Your task to perform on an android device: open app "Google Keep" Image 0: 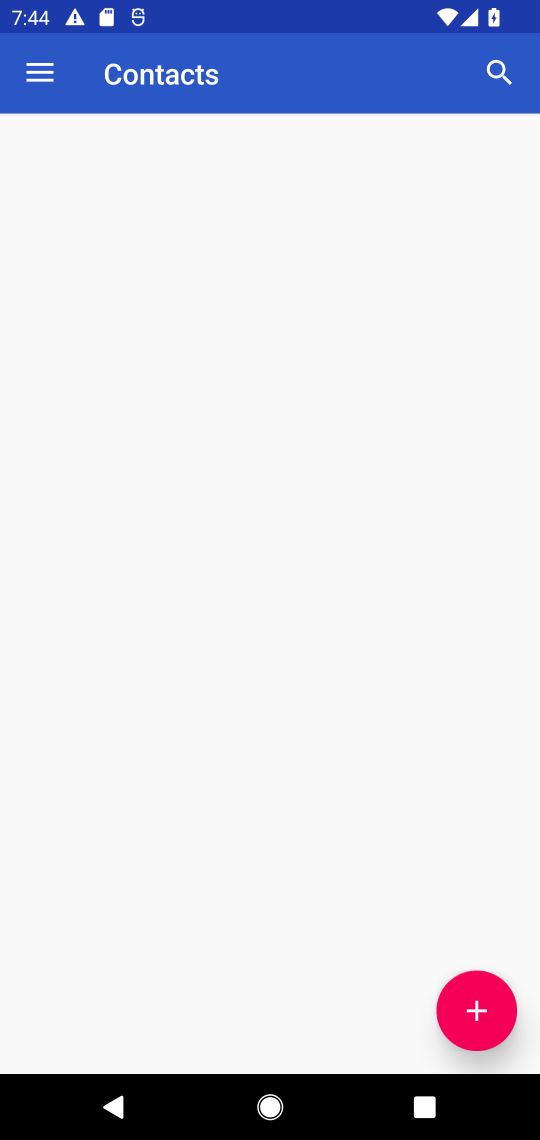
Step 0: press home button
Your task to perform on an android device: open app "Google Keep" Image 1: 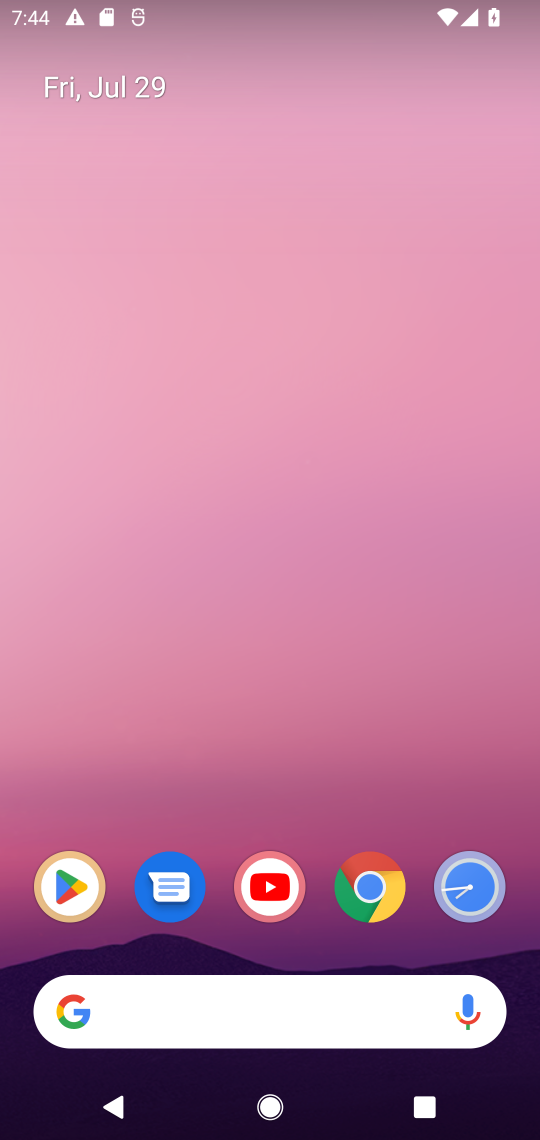
Step 1: drag from (432, 851) to (432, 97)
Your task to perform on an android device: open app "Google Keep" Image 2: 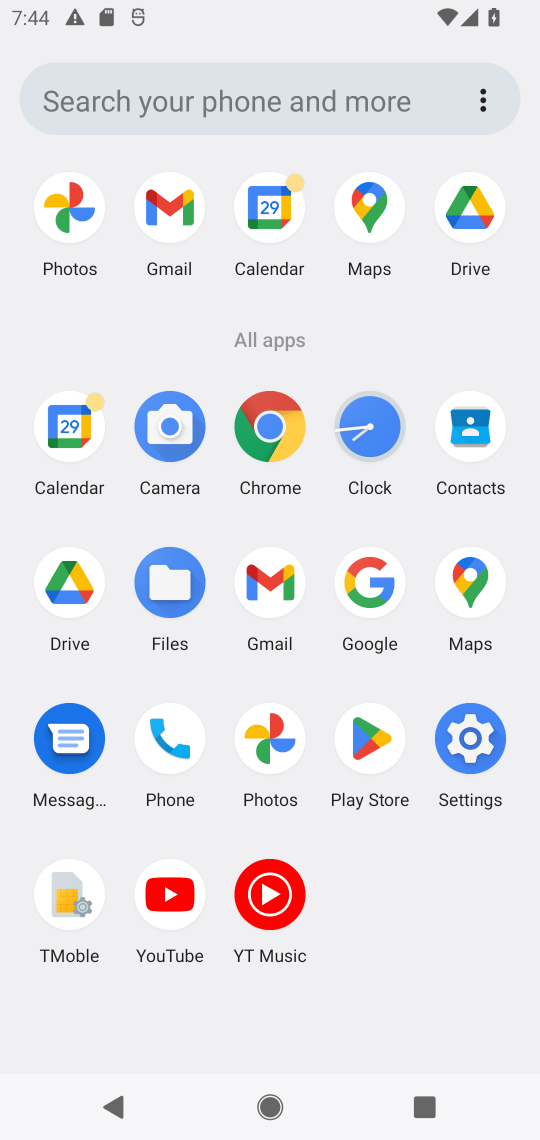
Step 2: click (389, 737)
Your task to perform on an android device: open app "Google Keep" Image 3: 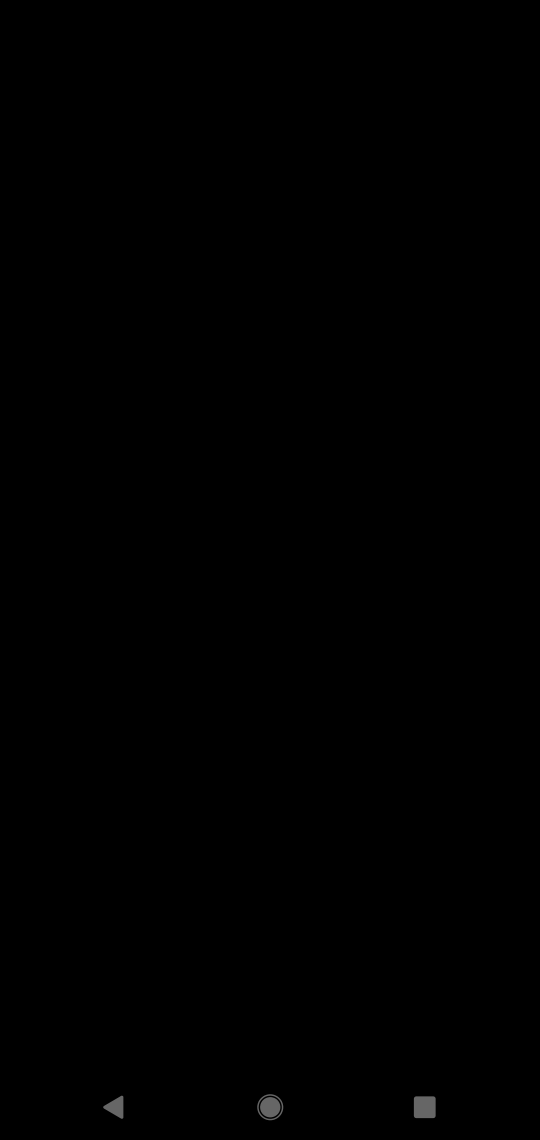
Step 3: task complete